Your task to perform on an android device: delete the emails in spam in the gmail app Image 0: 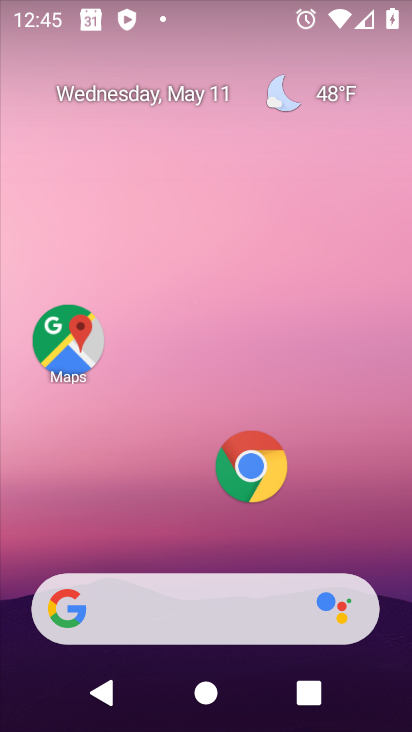
Step 0: drag from (186, 511) to (238, 62)
Your task to perform on an android device: delete the emails in spam in the gmail app Image 1: 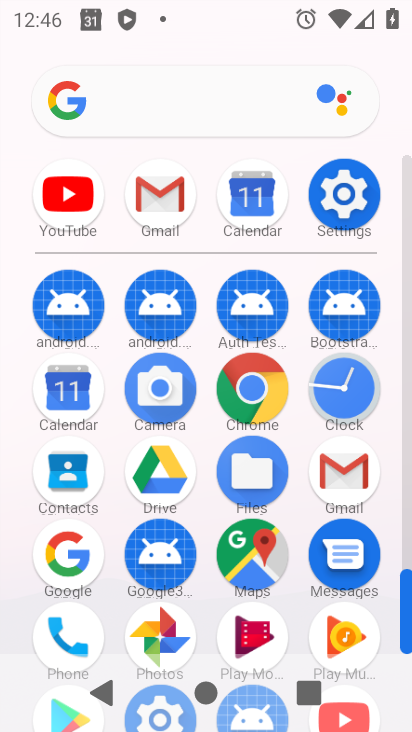
Step 1: click (338, 465)
Your task to perform on an android device: delete the emails in spam in the gmail app Image 2: 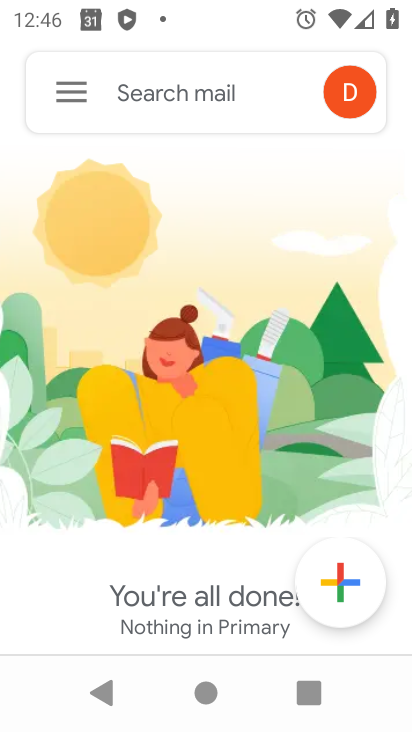
Step 2: click (67, 84)
Your task to perform on an android device: delete the emails in spam in the gmail app Image 3: 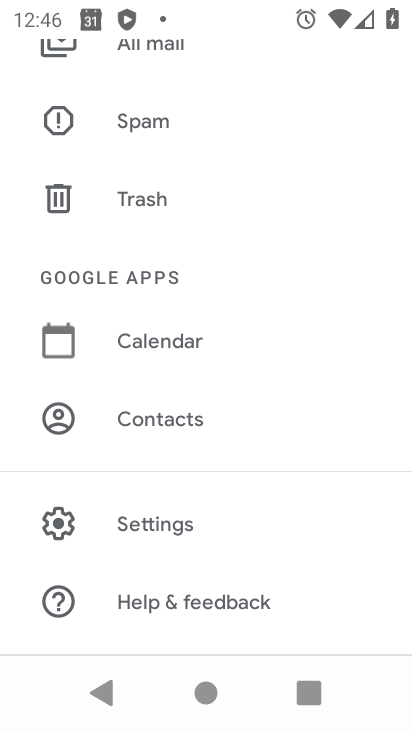
Step 3: click (150, 115)
Your task to perform on an android device: delete the emails in spam in the gmail app Image 4: 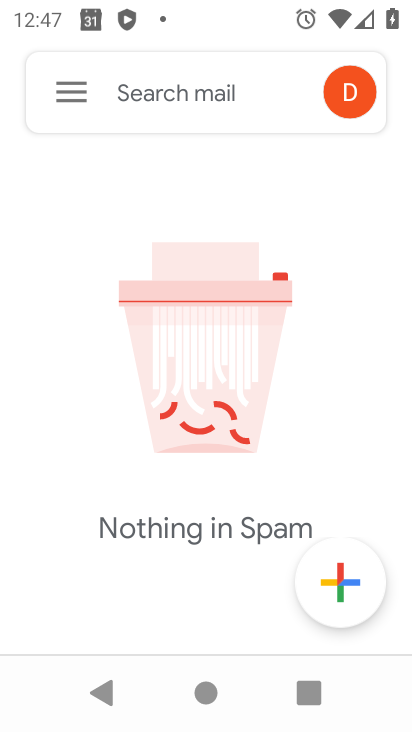
Step 4: task complete